Your task to perform on an android device: Go to privacy settings Image 0: 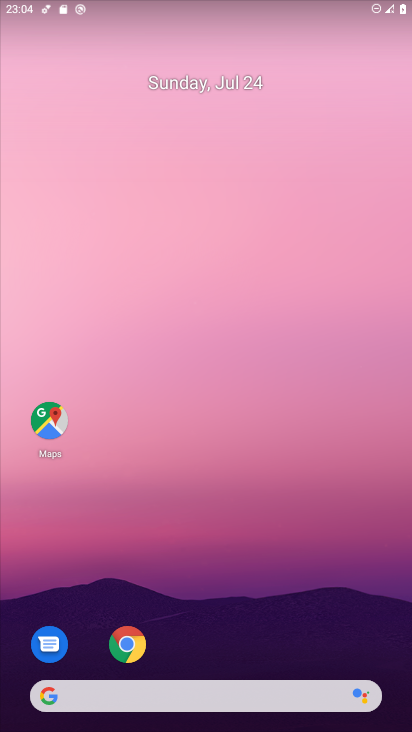
Step 0: drag from (361, 627) to (313, 89)
Your task to perform on an android device: Go to privacy settings Image 1: 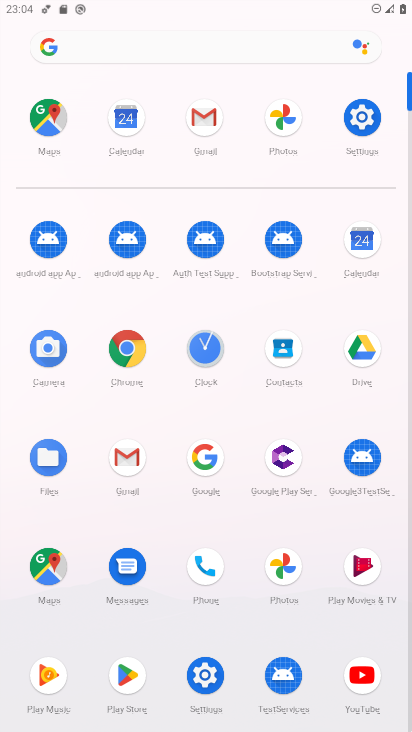
Step 1: click (204, 674)
Your task to perform on an android device: Go to privacy settings Image 2: 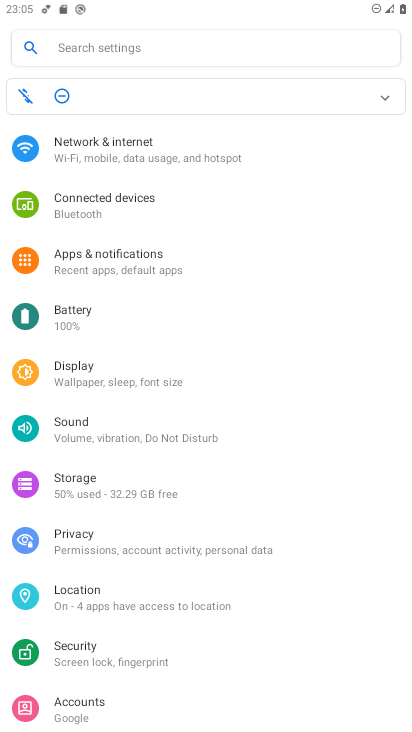
Step 2: click (77, 536)
Your task to perform on an android device: Go to privacy settings Image 3: 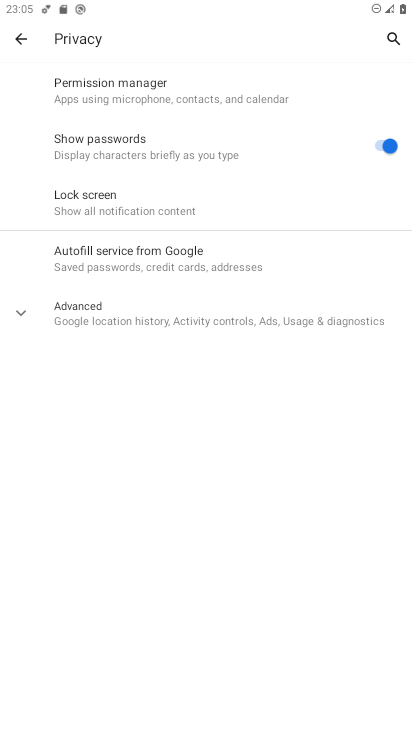
Step 3: click (22, 318)
Your task to perform on an android device: Go to privacy settings Image 4: 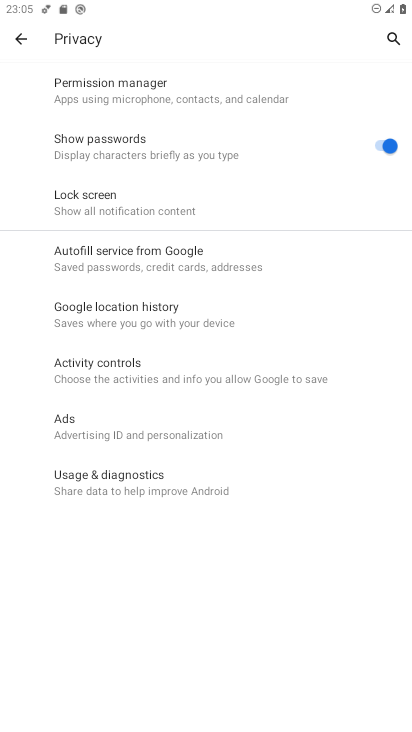
Step 4: task complete